Your task to perform on an android device: Open privacy settings Image 0: 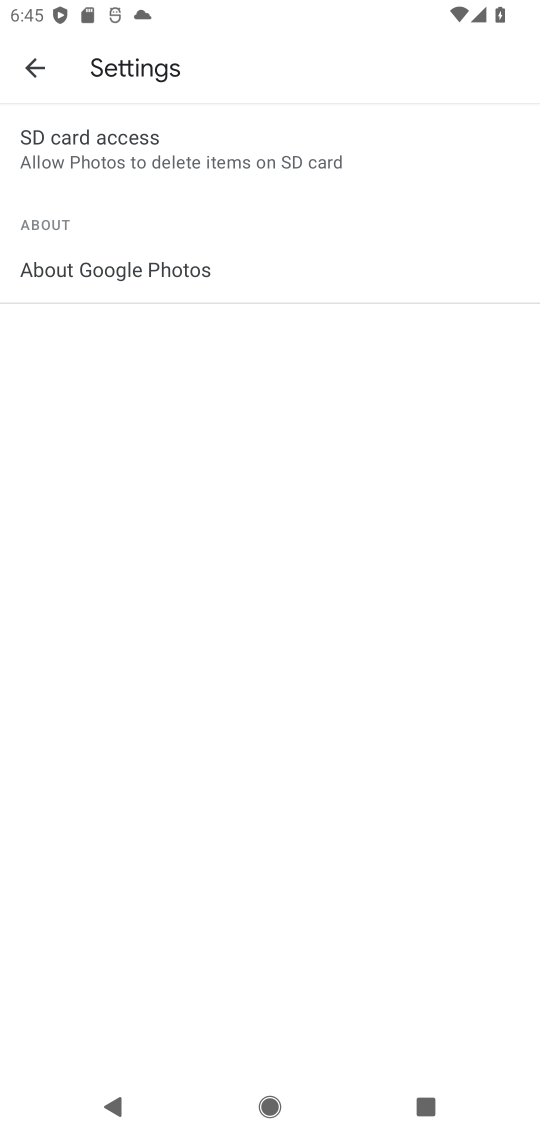
Step 0: press home button
Your task to perform on an android device: Open privacy settings Image 1: 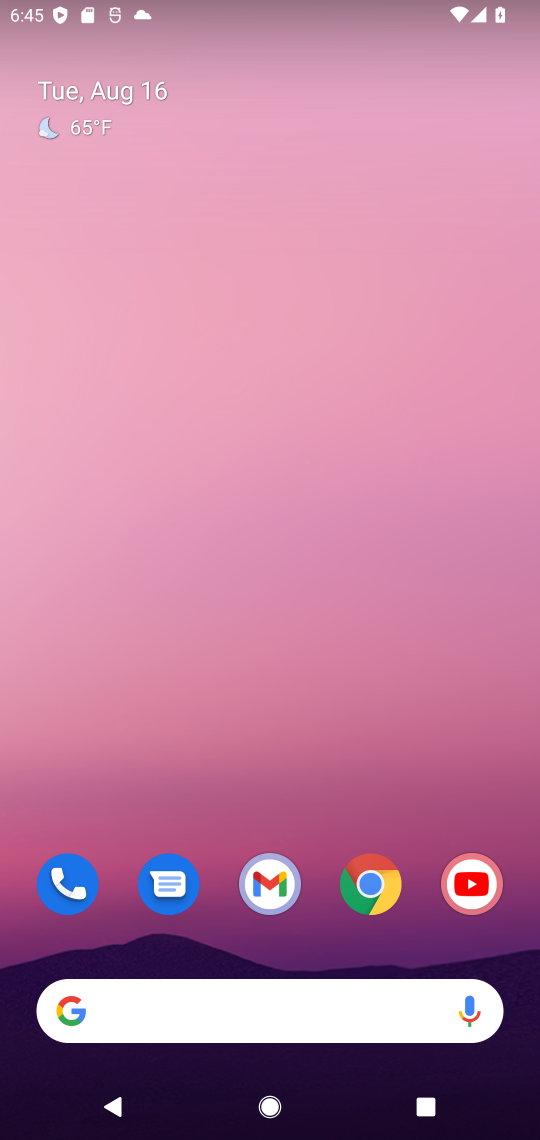
Step 1: drag from (346, 566) to (365, 88)
Your task to perform on an android device: Open privacy settings Image 2: 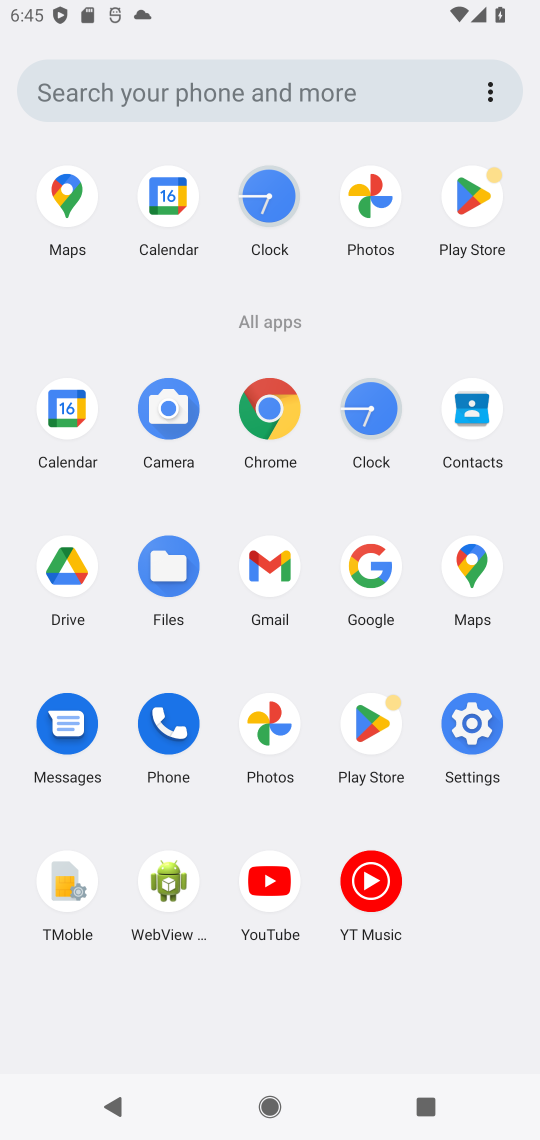
Step 2: click (459, 739)
Your task to perform on an android device: Open privacy settings Image 3: 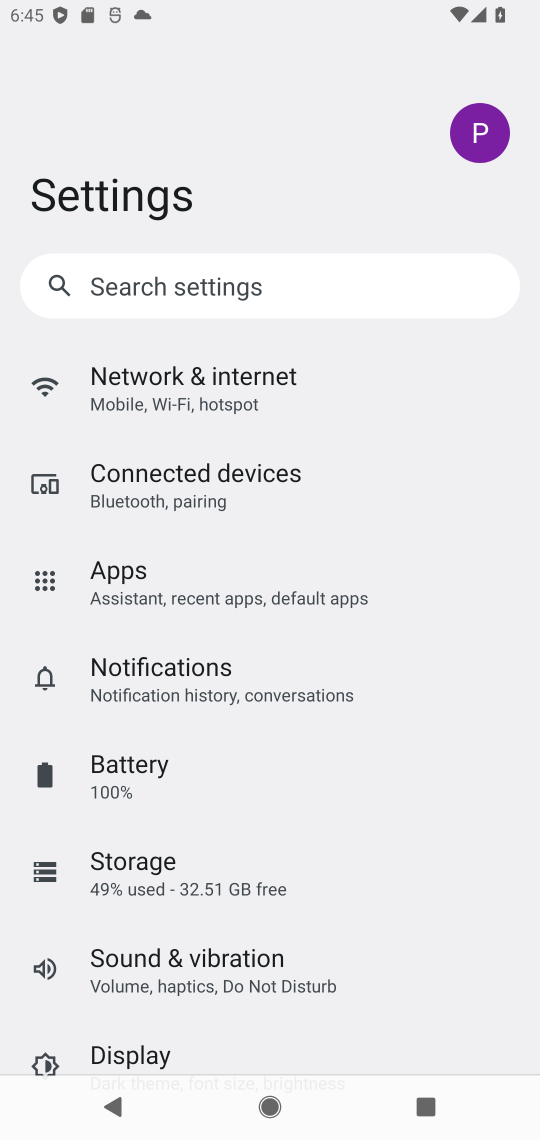
Step 3: drag from (420, 1031) to (415, 242)
Your task to perform on an android device: Open privacy settings Image 4: 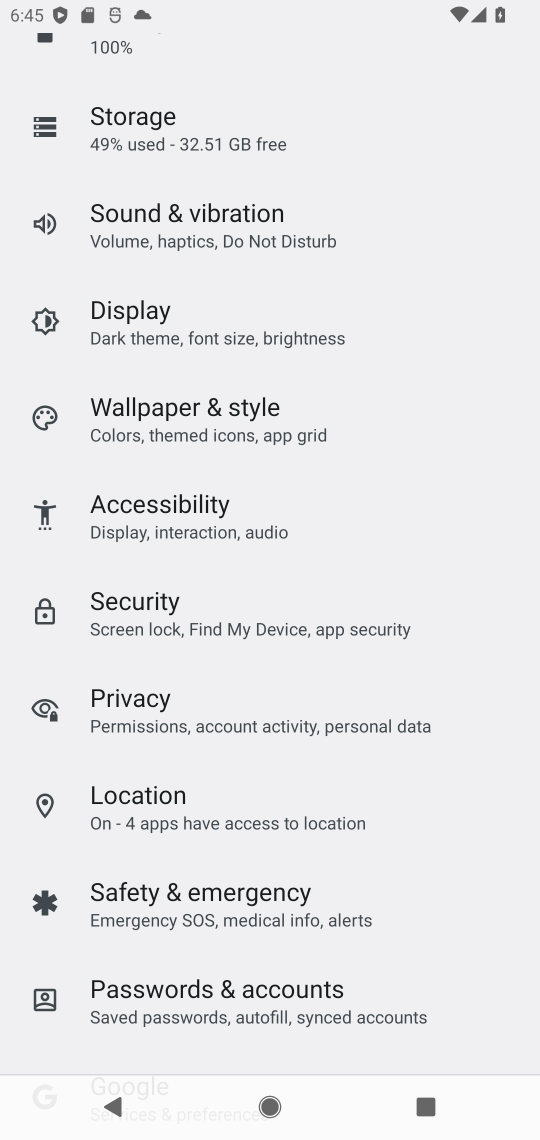
Step 4: click (165, 720)
Your task to perform on an android device: Open privacy settings Image 5: 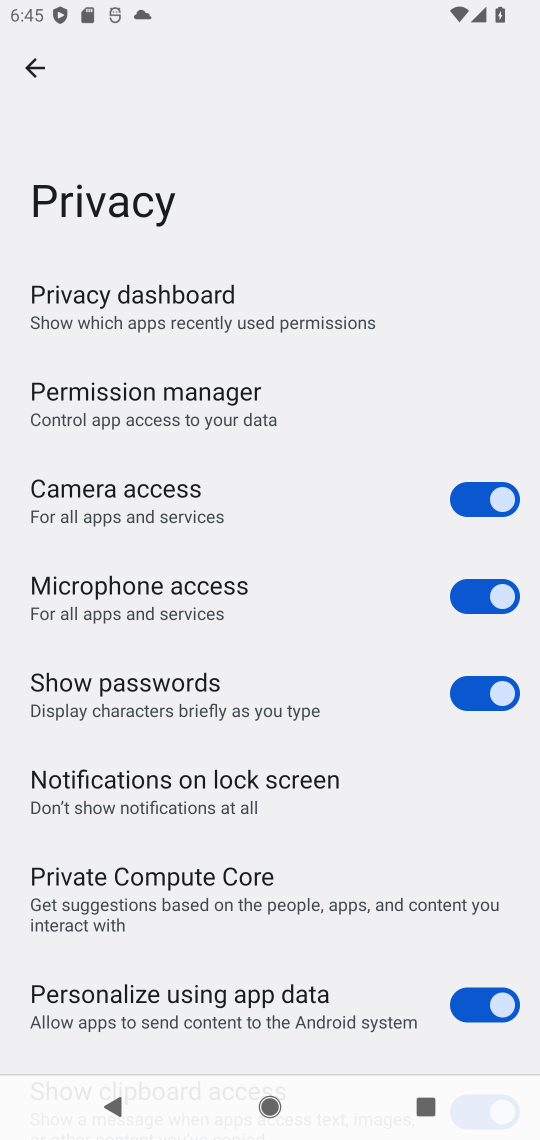
Step 5: task complete